Your task to perform on an android device: Open maps Image 0: 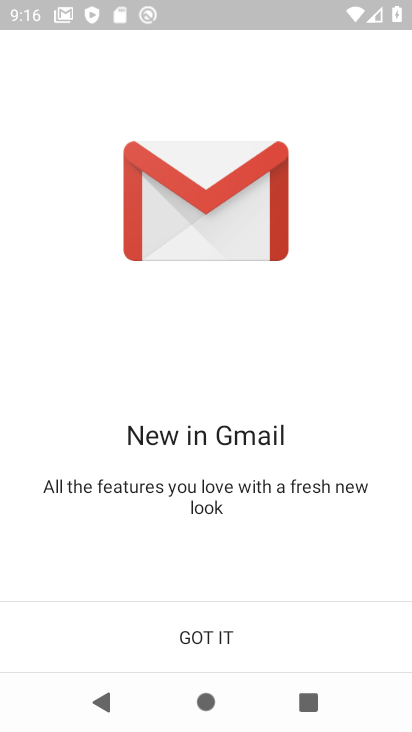
Step 0: press home button
Your task to perform on an android device: Open maps Image 1: 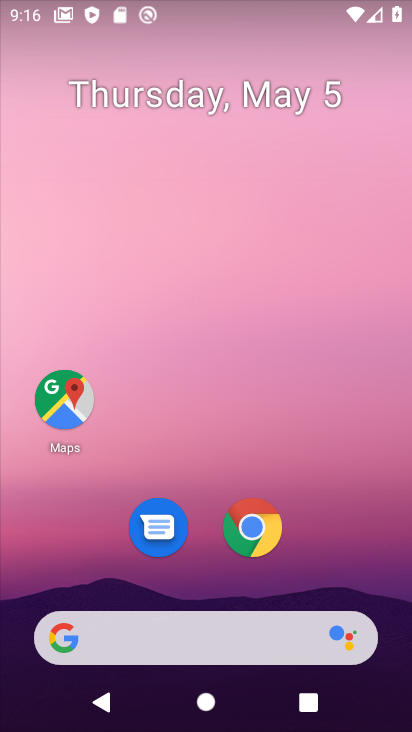
Step 1: click (65, 418)
Your task to perform on an android device: Open maps Image 2: 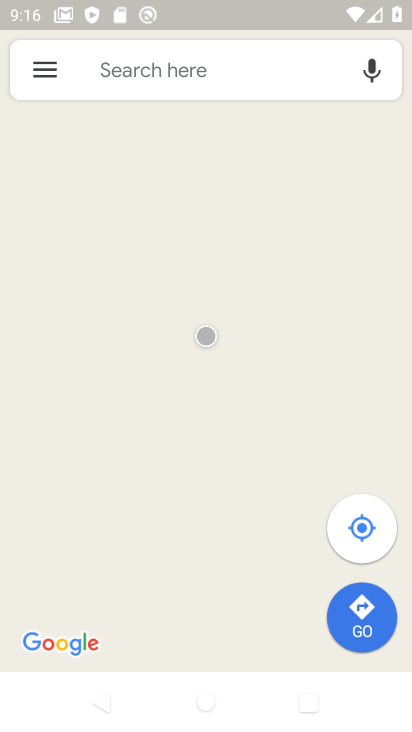
Step 2: task complete